Your task to perform on an android device: What is the recent news? Image 0: 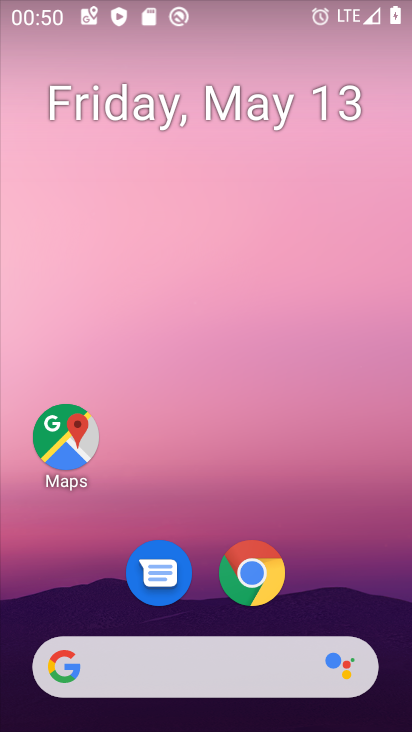
Step 0: click (259, 676)
Your task to perform on an android device: What is the recent news? Image 1: 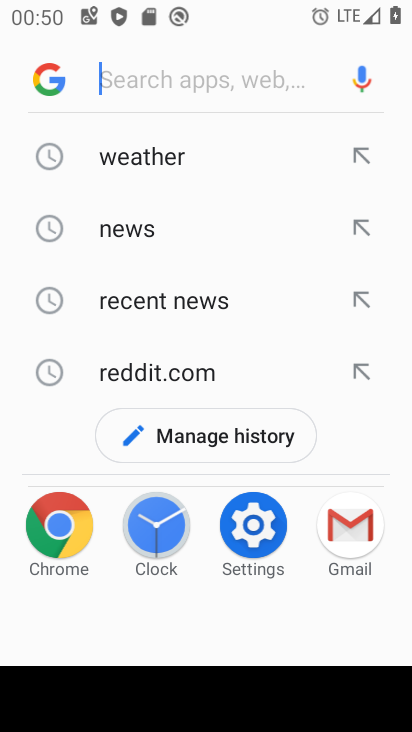
Step 1: click (187, 304)
Your task to perform on an android device: What is the recent news? Image 2: 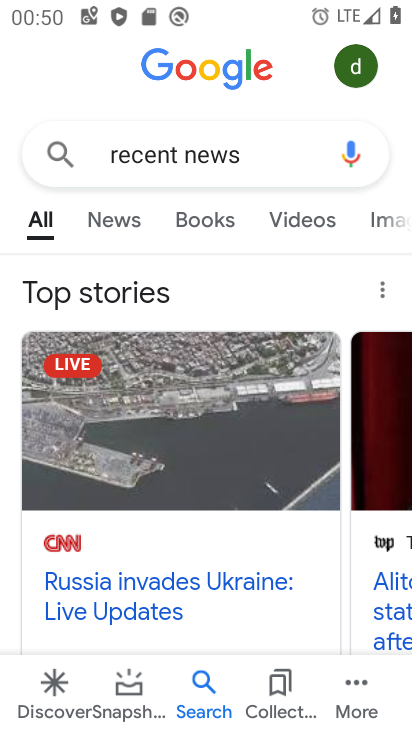
Step 2: task complete